Your task to perform on an android device: Show me recent news Image 0: 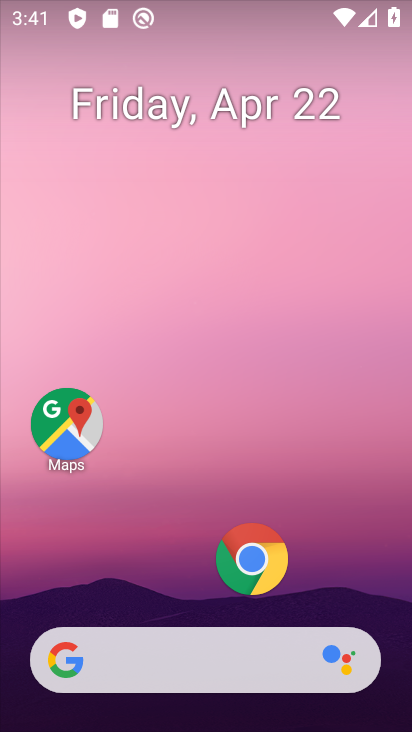
Step 0: drag from (188, 524) to (256, 231)
Your task to perform on an android device: Show me recent news Image 1: 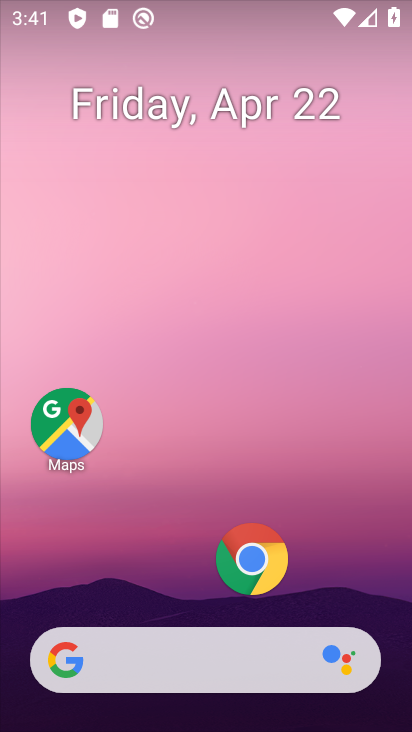
Step 1: click (167, 646)
Your task to perform on an android device: Show me recent news Image 2: 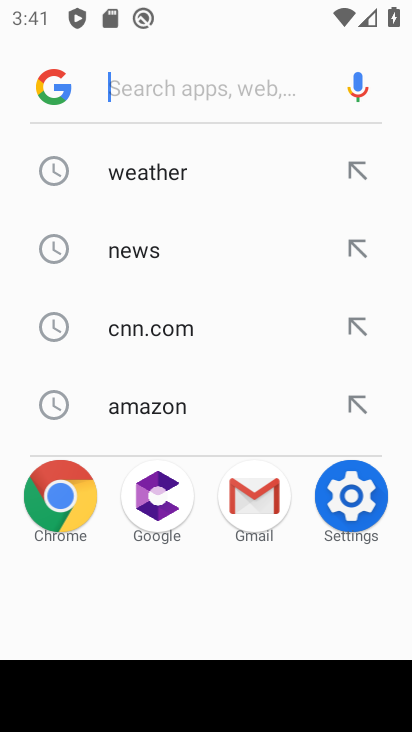
Step 2: click (169, 258)
Your task to perform on an android device: Show me recent news Image 3: 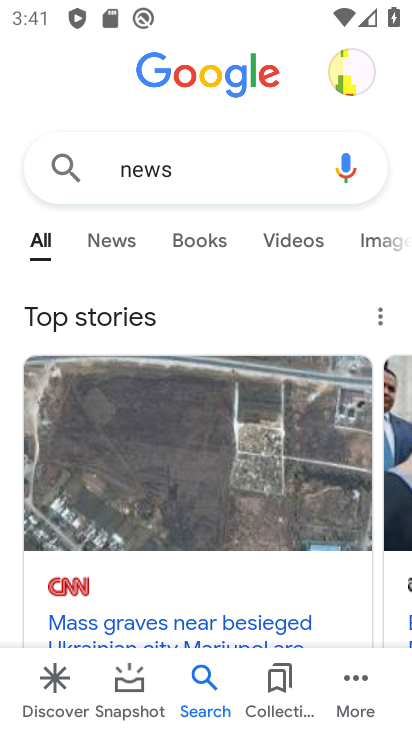
Step 3: task complete